Your task to perform on an android device: Empty the shopping cart on walmart.com. Add "jbl charge 4" to the cart on walmart.com, then select checkout. Image 0: 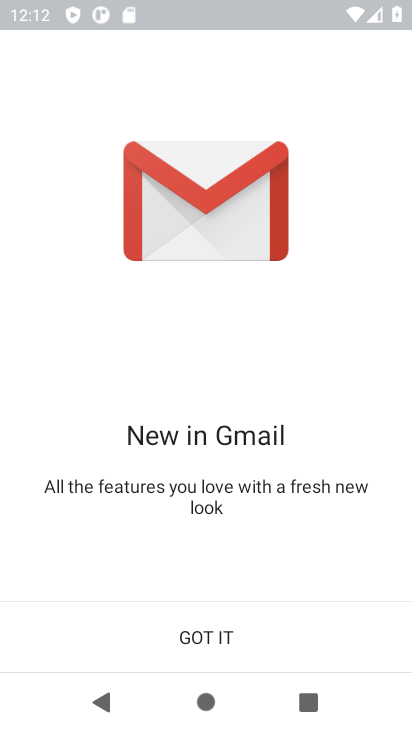
Step 0: press home button
Your task to perform on an android device: Empty the shopping cart on walmart.com. Add "jbl charge 4" to the cart on walmart.com, then select checkout. Image 1: 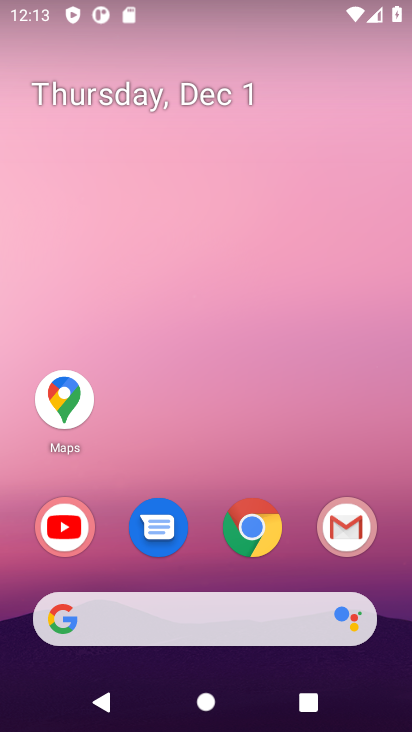
Step 1: click (265, 530)
Your task to perform on an android device: Empty the shopping cart on walmart.com. Add "jbl charge 4" to the cart on walmart.com, then select checkout. Image 2: 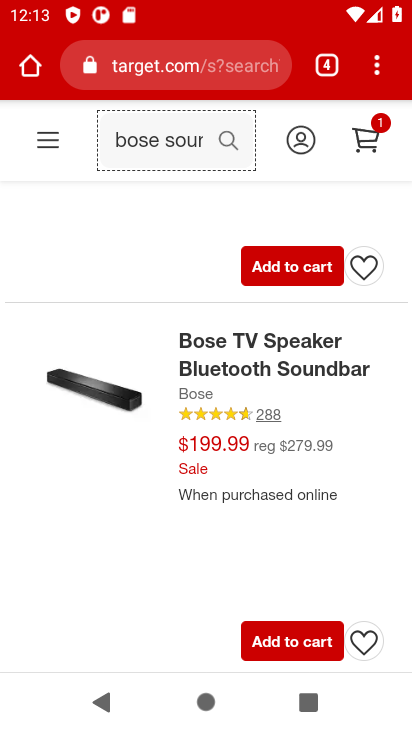
Step 2: click (182, 61)
Your task to perform on an android device: Empty the shopping cart on walmart.com. Add "jbl charge 4" to the cart on walmart.com, then select checkout. Image 3: 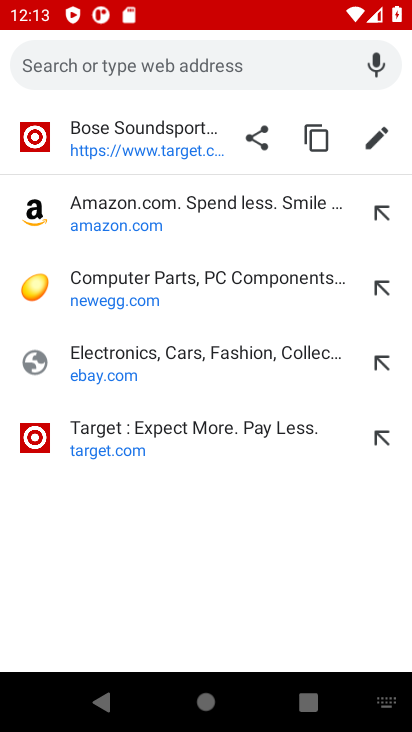
Step 3: type "walmart.com"
Your task to perform on an android device: Empty the shopping cart on walmart.com. Add "jbl charge 4" to the cart on walmart.com, then select checkout. Image 4: 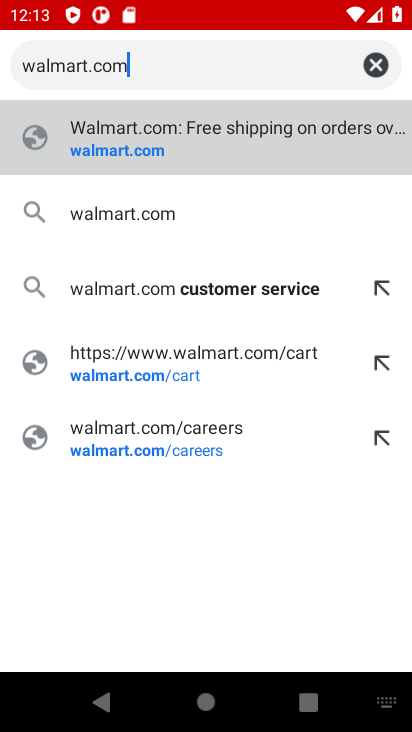
Step 4: click (113, 156)
Your task to perform on an android device: Empty the shopping cart on walmart.com. Add "jbl charge 4" to the cart on walmart.com, then select checkout. Image 5: 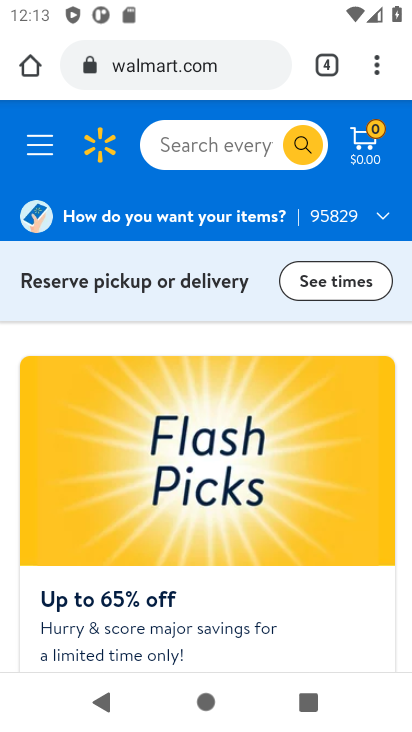
Step 5: click (364, 152)
Your task to perform on an android device: Empty the shopping cart on walmart.com. Add "jbl charge 4" to the cart on walmart.com, then select checkout. Image 6: 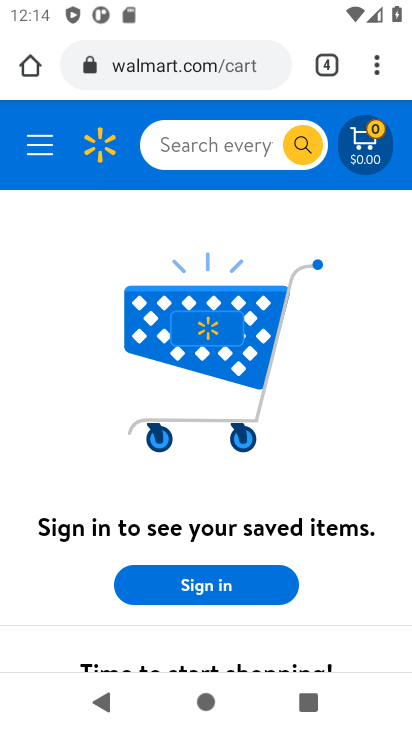
Step 6: click (192, 143)
Your task to perform on an android device: Empty the shopping cart on walmart.com. Add "jbl charge 4" to the cart on walmart.com, then select checkout. Image 7: 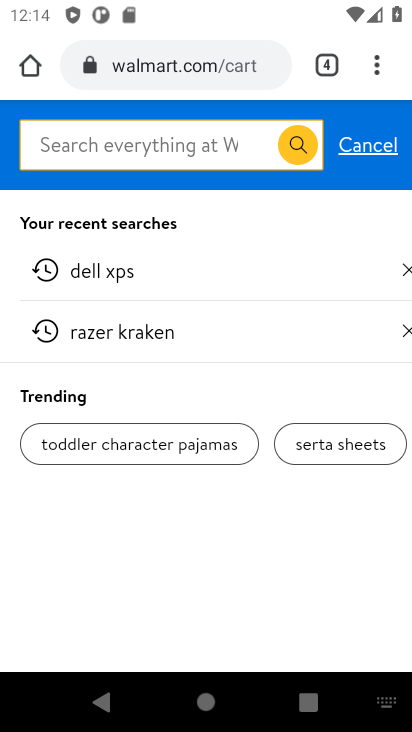
Step 7: type "jbl charge 4"
Your task to perform on an android device: Empty the shopping cart on walmart.com. Add "jbl charge 4" to the cart on walmart.com, then select checkout. Image 8: 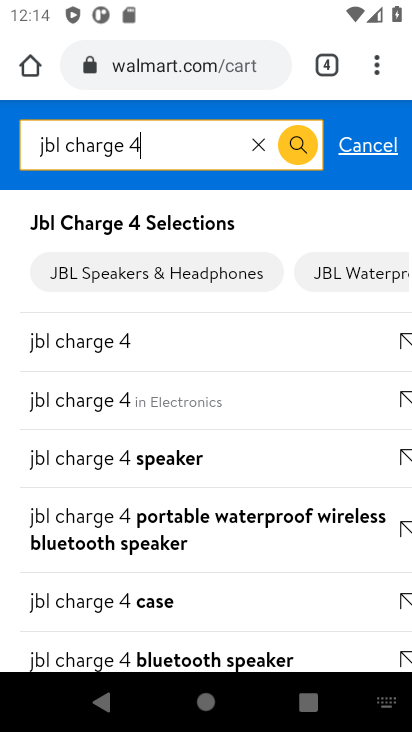
Step 8: click (99, 342)
Your task to perform on an android device: Empty the shopping cart on walmart.com. Add "jbl charge 4" to the cart on walmart.com, then select checkout. Image 9: 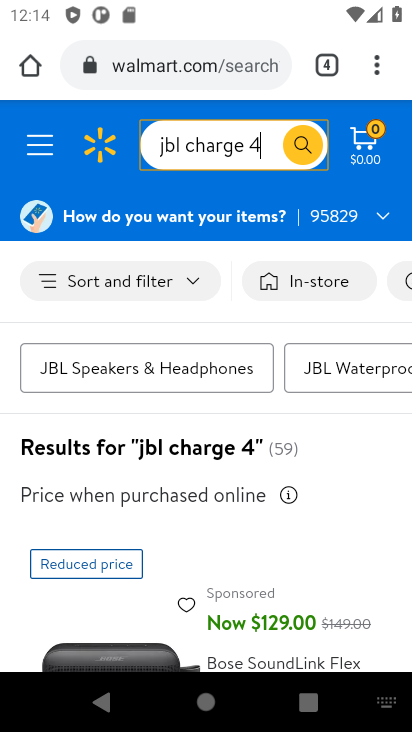
Step 9: drag from (235, 487) to (254, 300)
Your task to perform on an android device: Empty the shopping cart on walmart.com. Add "jbl charge 4" to the cart on walmart.com, then select checkout. Image 10: 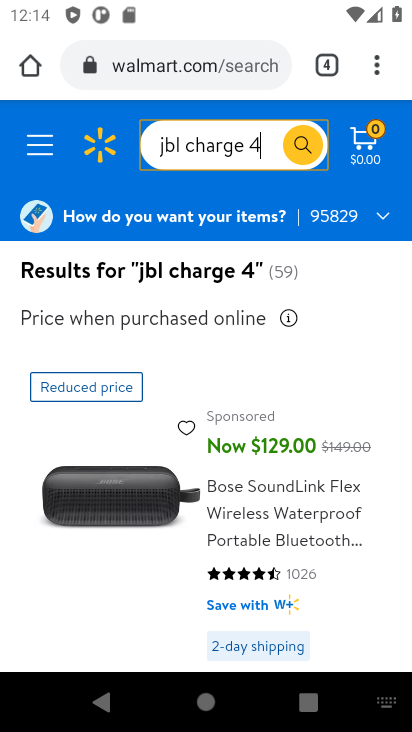
Step 10: drag from (263, 513) to (263, 380)
Your task to perform on an android device: Empty the shopping cart on walmart.com. Add "jbl charge 4" to the cart on walmart.com, then select checkout. Image 11: 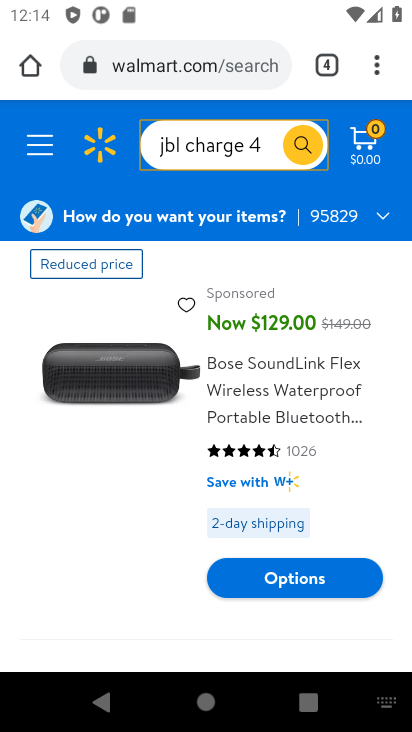
Step 11: drag from (271, 470) to (271, 306)
Your task to perform on an android device: Empty the shopping cart on walmart.com. Add "jbl charge 4" to the cart on walmart.com, then select checkout. Image 12: 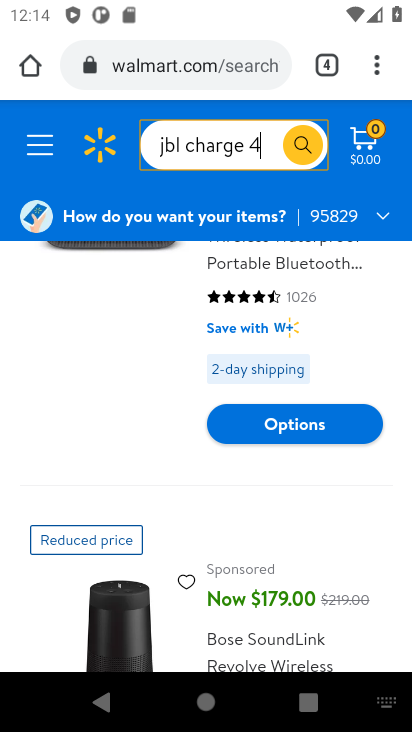
Step 12: drag from (259, 544) to (260, 396)
Your task to perform on an android device: Empty the shopping cart on walmart.com. Add "jbl charge 4" to the cart on walmart.com, then select checkout. Image 13: 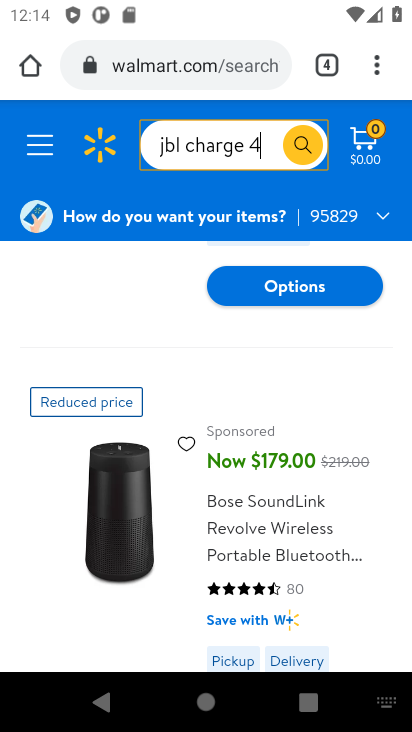
Step 13: drag from (255, 543) to (252, 312)
Your task to perform on an android device: Empty the shopping cart on walmart.com. Add "jbl charge 4" to the cart on walmart.com, then select checkout. Image 14: 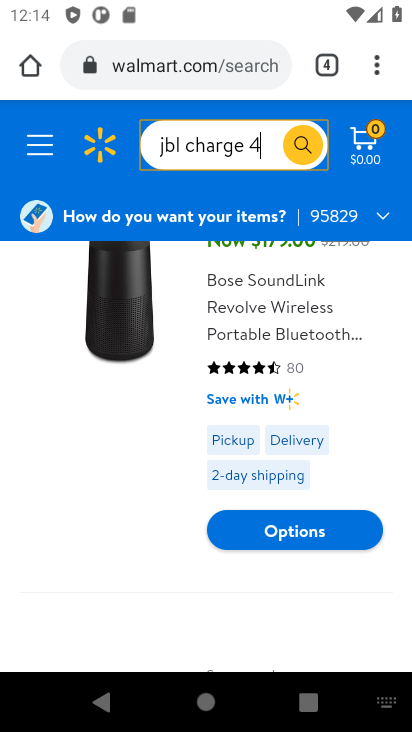
Step 14: drag from (249, 561) to (254, 417)
Your task to perform on an android device: Empty the shopping cart on walmart.com. Add "jbl charge 4" to the cart on walmart.com, then select checkout. Image 15: 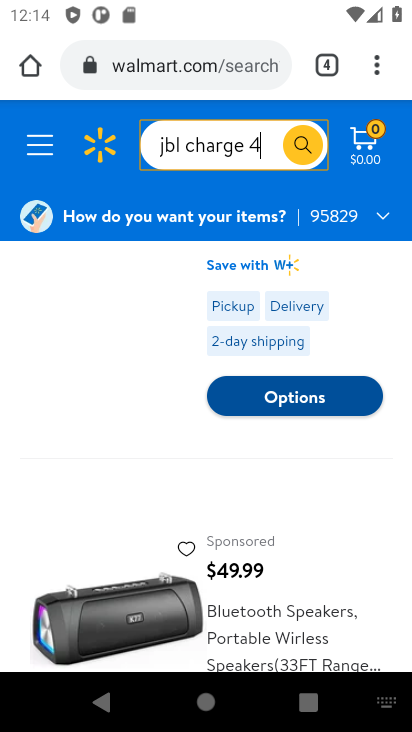
Step 15: drag from (255, 609) to (251, 396)
Your task to perform on an android device: Empty the shopping cart on walmart.com. Add "jbl charge 4" to the cart on walmart.com, then select checkout. Image 16: 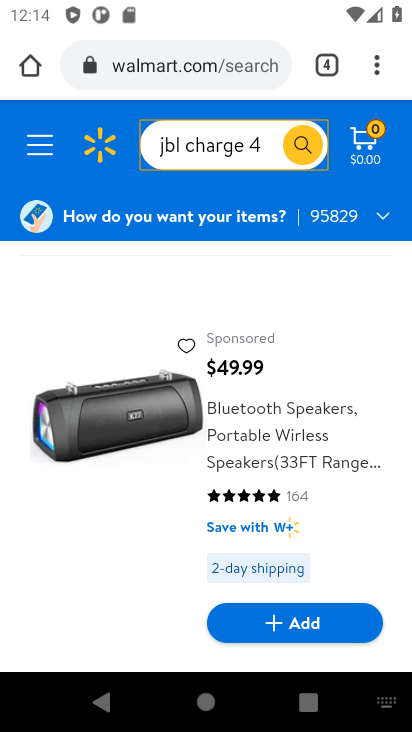
Step 16: drag from (250, 606) to (245, 368)
Your task to perform on an android device: Empty the shopping cart on walmart.com. Add "jbl charge 4" to the cart on walmart.com, then select checkout. Image 17: 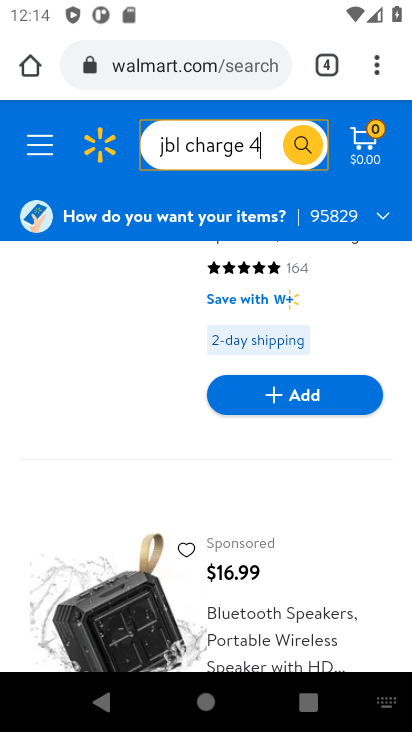
Step 17: drag from (253, 557) to (260, 378)
Your task to perform on an android device: Empty the shopping cart on walmart.com. Add "jbl charge 4" to the cart on walmart.com, then select checkout. Image 18: 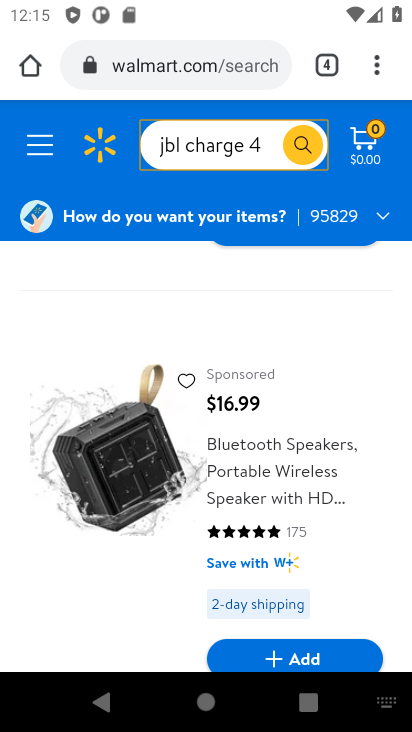
Step 18: drag from (276, 583) to (267, 348)
Your task to perform on an android device: Empty the shopping cart on walmart.com. Add "jbl charge 4" to the cart on walmart.com, then select checkout. Image 19: 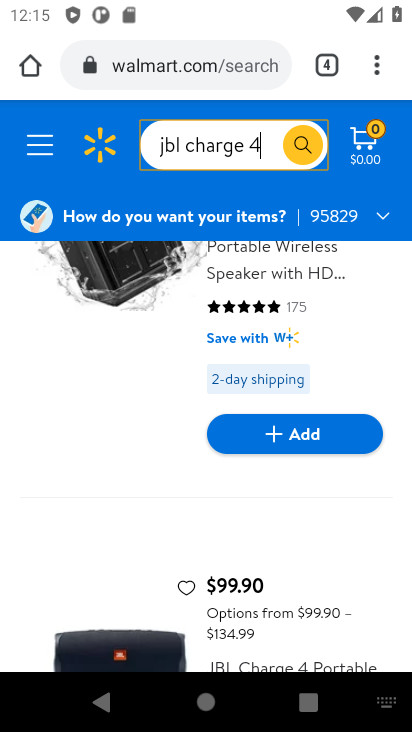
Step 19: drag from (261, 544) to (259, 372)
Your task to perform on an android device: Empty the shopping cart on walmart.com. Add "jbl charge 4" to the cart on walmart.com, then select checkout. Image 20: 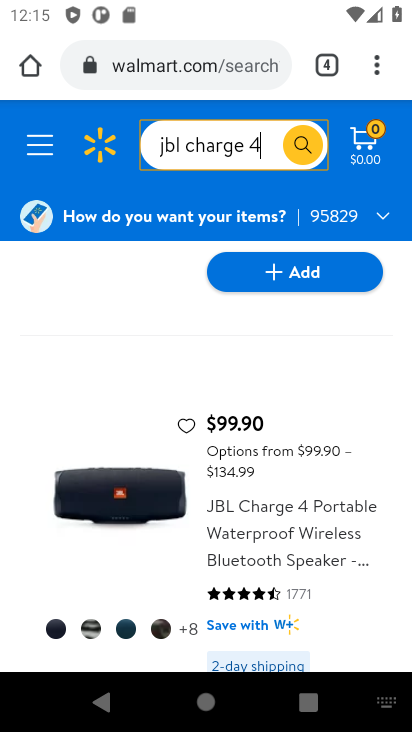
Step 20: drag from (260, 486) to (258, 362)
Your task to perform on an android device: Empty the shopping cart on walmart.com. Add "jbl charge 4" to the cart on walmart.com, then select checkout. Image 21: 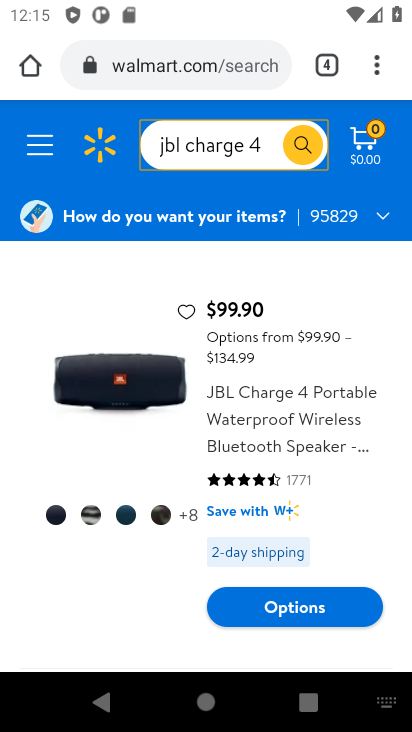
Step 21: click (309, 447)
Your task to perform on an android device: Empty the shopping cart on walmart.com. Add "jbl charge 4" to the cart on walmart.com, then select checkout. Image 22: 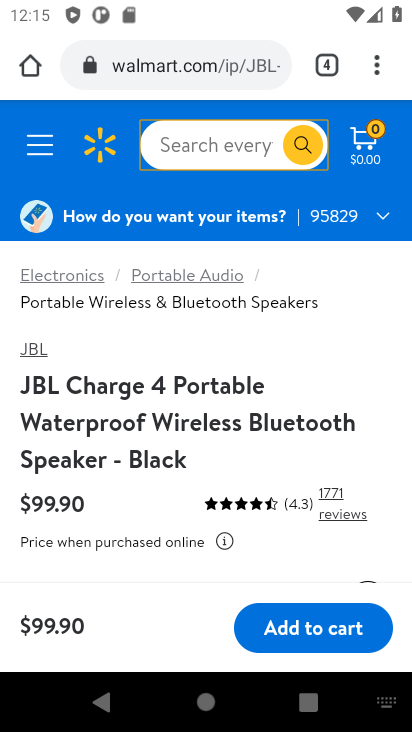
Step 22: click (281, 632)
Your task to perform on an android device: Empty the shopping cart on walmart.com. Add "jbl charge 4" to the cart on walmart.com, then select checkout. Image 23: 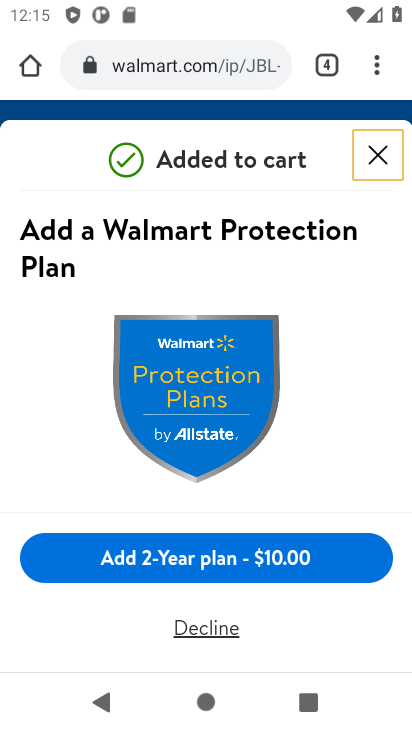
Step 23: click (377, 156)
Your task to perform on an android device: Empty the shopping cart on walmart.com. Add "jbl charge 4" to the cart on walmart.com, then select checkout. Image 24: 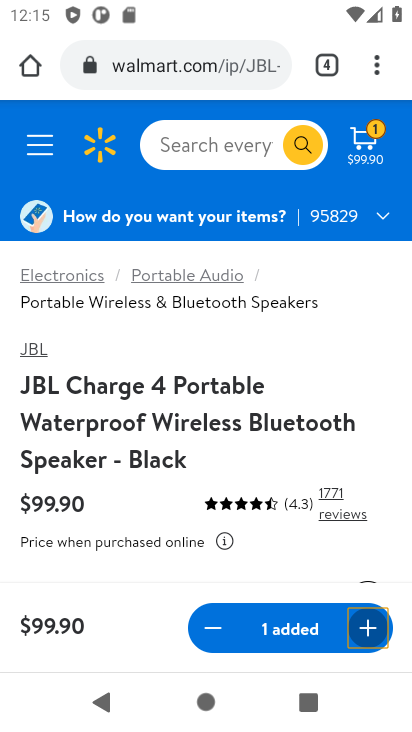
Step 24: click (357, 141)
Your task to perform on an android device: Empty the shopping cart on walmart.com. Add "jbl charge 4" to the cart on walmart.com, then select checkout. Image 25: 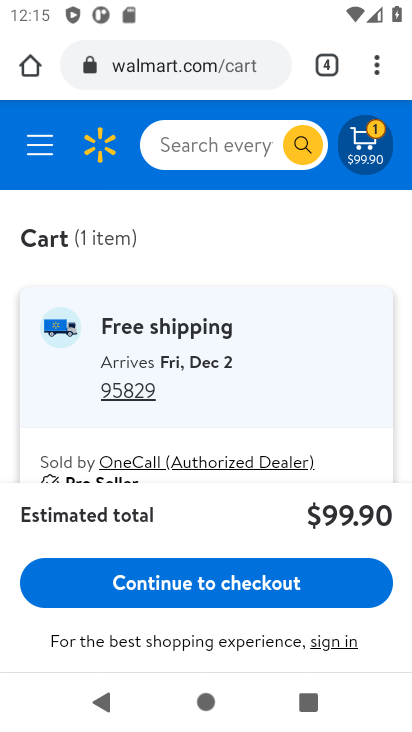
Step 25: click (248, 578)
Your task to perform on an android device: Empty the shopping cart on walmart.com. Add "jbl charge 4" to the cart on walmart.com, then select checkout. Image 26: 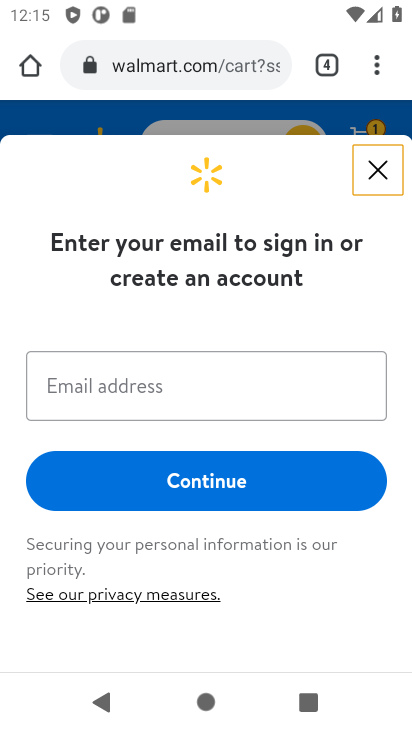
Step 26: task complete